Your task to perform on an android device: Search for seafood restaurants on Google Maps Image 0: 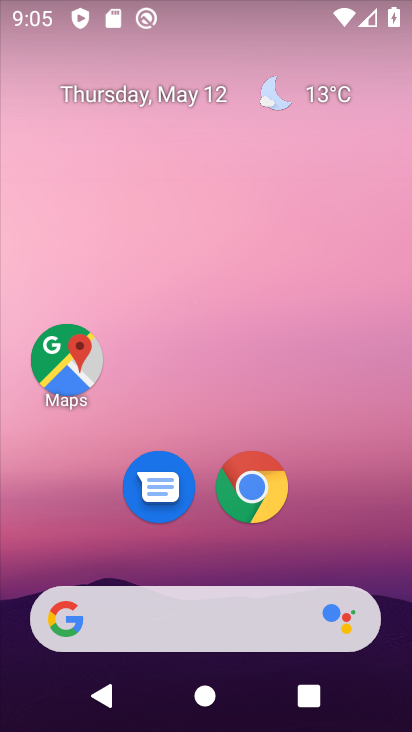
Step 0: click (55, 374)
Your task to perform on an android device: Search for seafood restaurants on Google Maps Image 1: 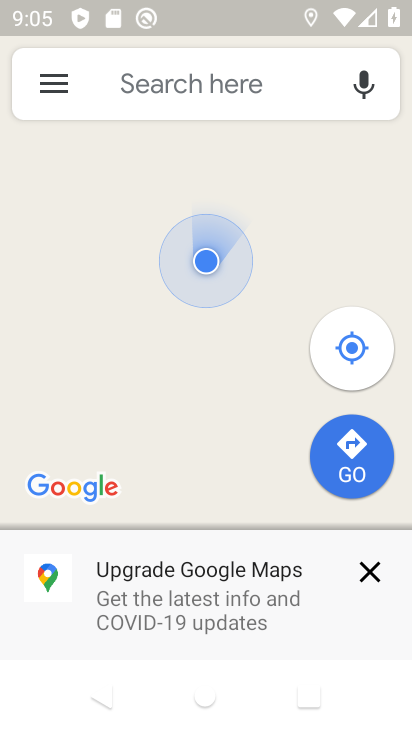
Step 1: click (178, 73)
Your task to perform on an android device: Search for seafood restaurants on Google Maps Image 2: 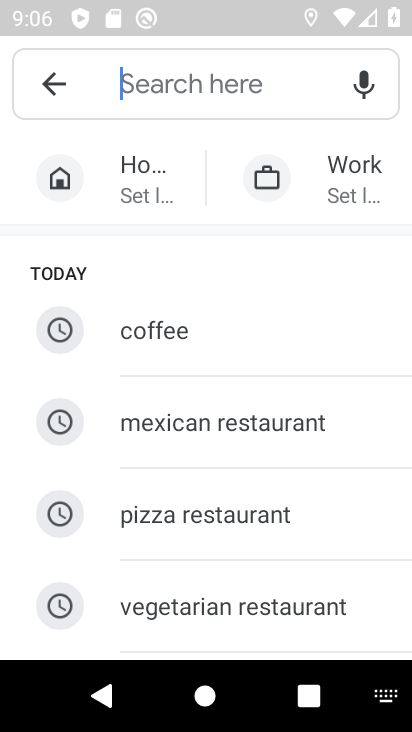
Step 2: type "seafood restaurant"
Your task to perform on an android device: Search for seafood restaurants on Google Maps Image 3: 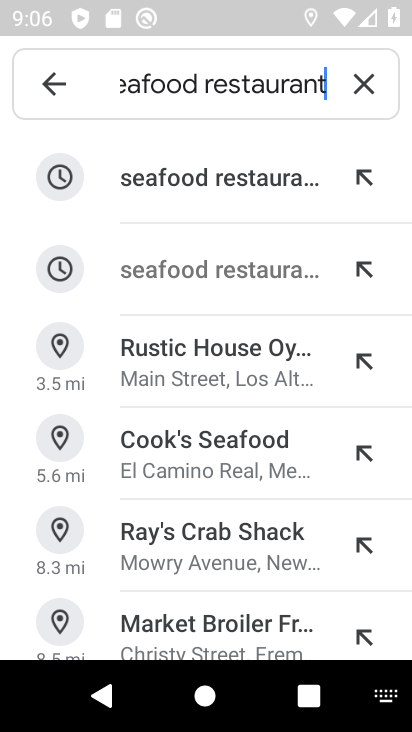
Step 3: click (266, 193)
Your task to perform on an android device: Search for seafood restaurants on Google Maps Image 4: 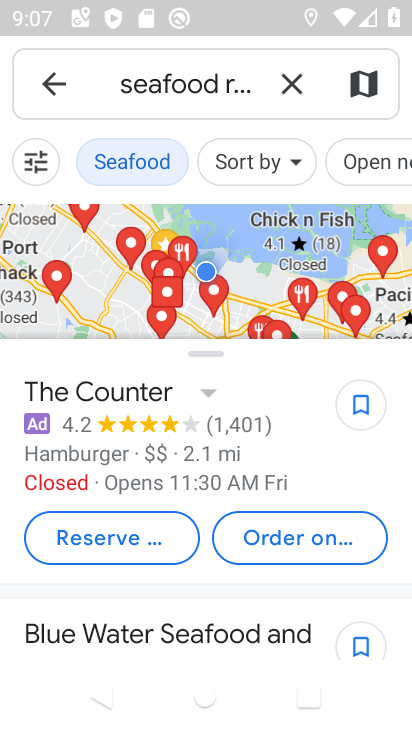
Step 4: task complete